Your task to perform on an android device: What's on my calendar today? Image 0: 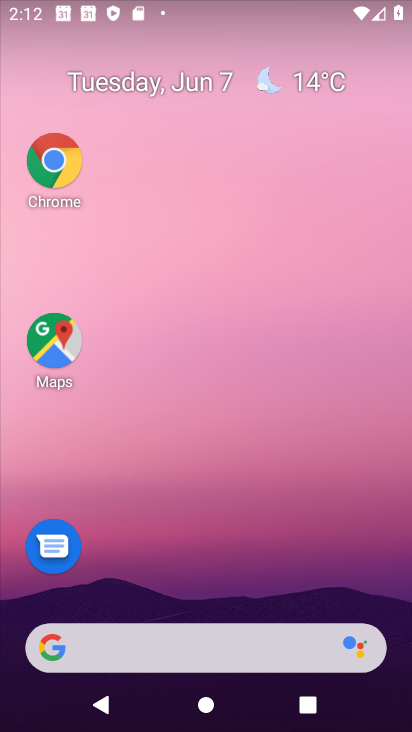
Step 0: drag from (143, 602) to (240, 152)
Your task to perform on an android device: What's on my calendar today? Image 1: 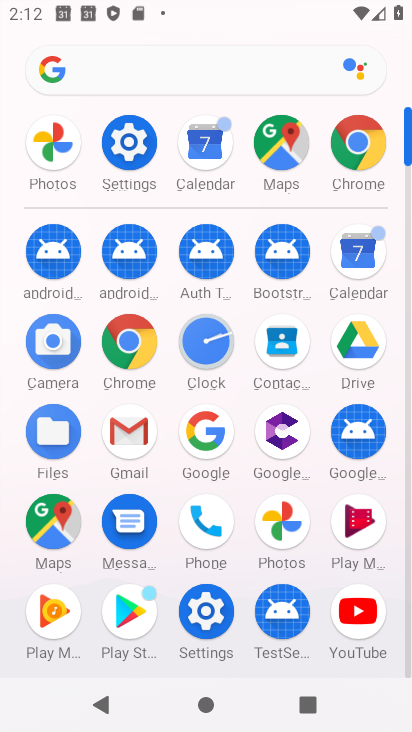
Step 1: click (361, 246)
Your task to perform on an android device: What's on my calendar today? Image 2: 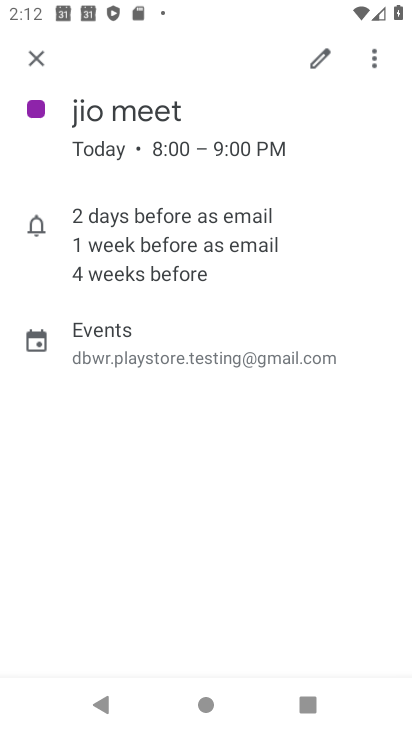
Step 2: click (29, 63)
Your task to perform on an android device: What's on my calendar today? Image 3: 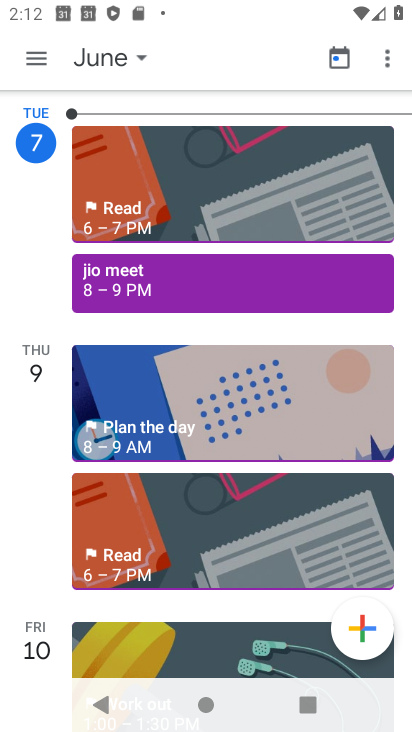
Step 3: click (123, 63)
Your task to perform on an android device: What's on my calendar today? Image 4: 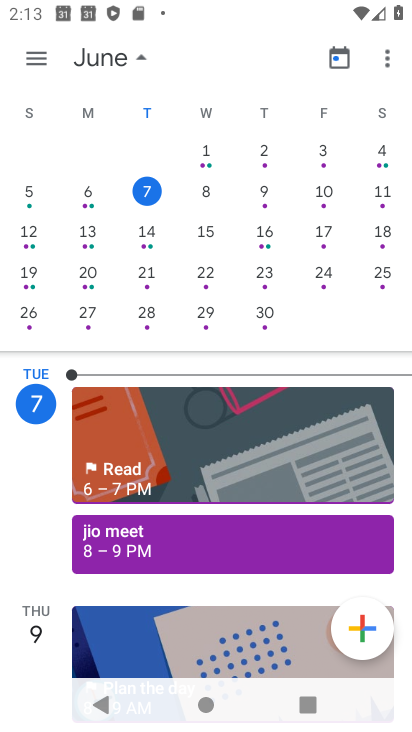
Step 4: click (143, 199)
Your task to perform on an android device: What's on my calendar today? Image 5: 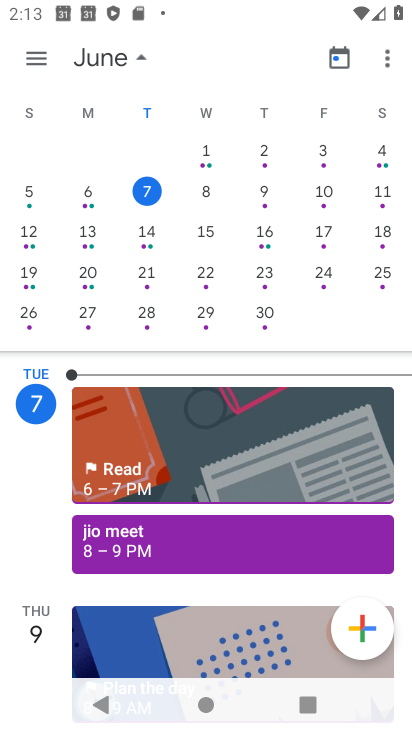
Step 5: task complete